Your task to perform on an android device: turn on javascript in the chrome app Image 0: 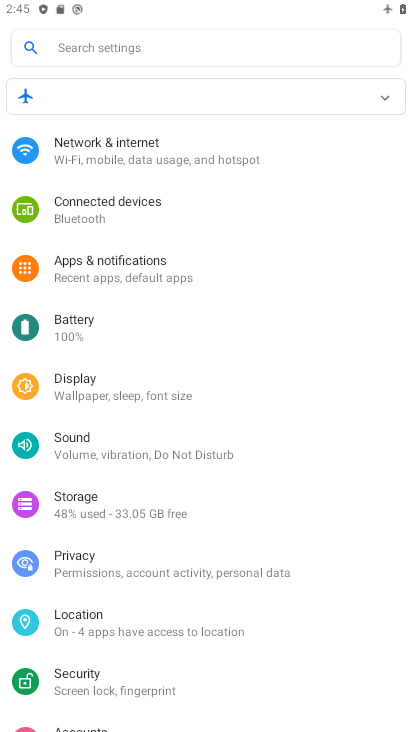
Step 0: press home button
Your task to perform on an android device: turn on javascript in the chrome app Image 1: 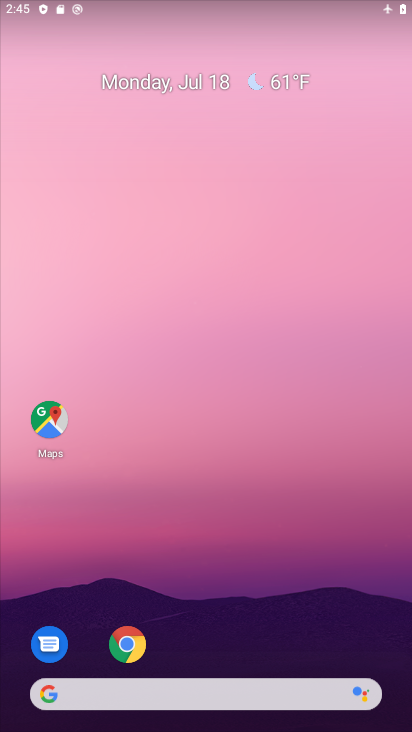
Step 1: click (141, 655)
Your task to perform on an android device: turn on javascript in the chrome app Image 2: 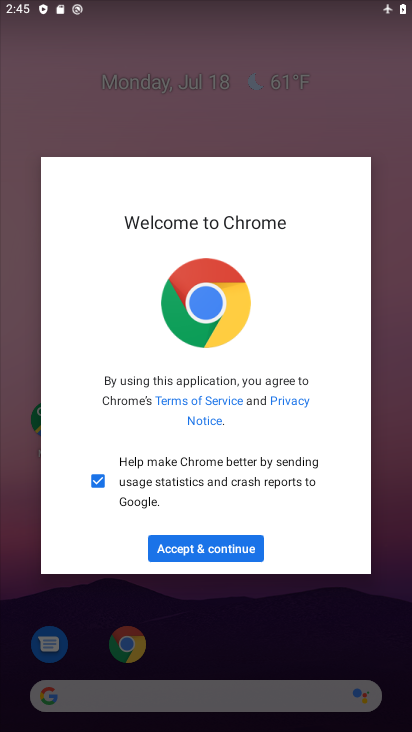
Step 2: click (226, 547)
Your task to perform on an android device: turn on javascript in the chrome app Image 3: 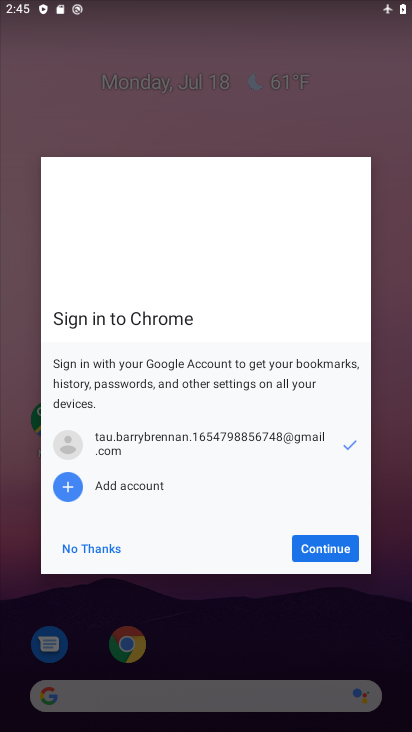
Step 3: click (336, 547)
Your task to perform on an android device: turn on javascript in the chrome app Image 4: 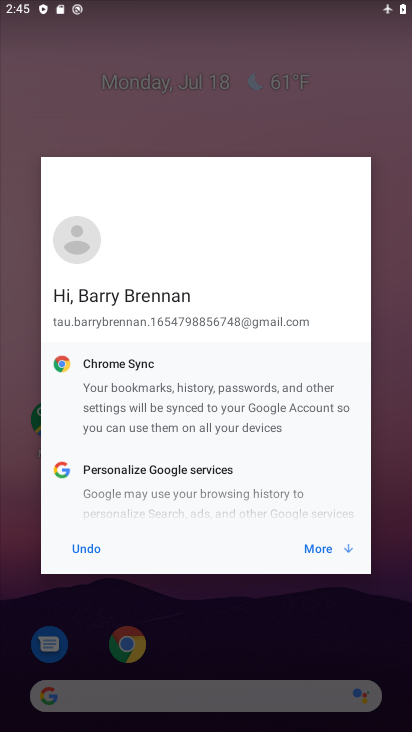
Step 4: click (336, 547)
Your task to perform on an android device: turn on javascript in the chrome app Image 5: 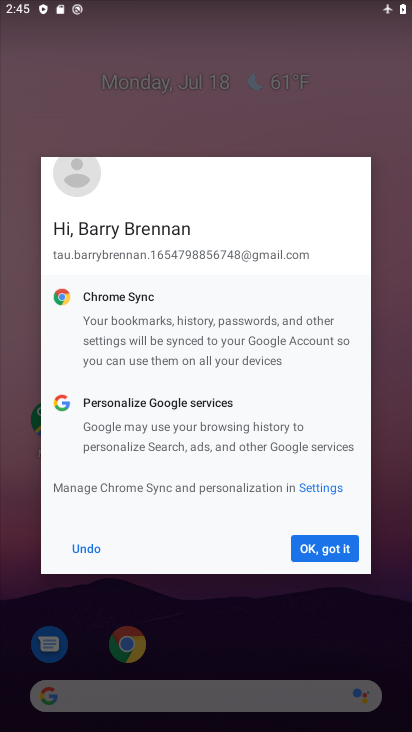
Step 5: click (336, 547)
Your task to perform on an android device: turn on javascript in the chrome app Image 6: 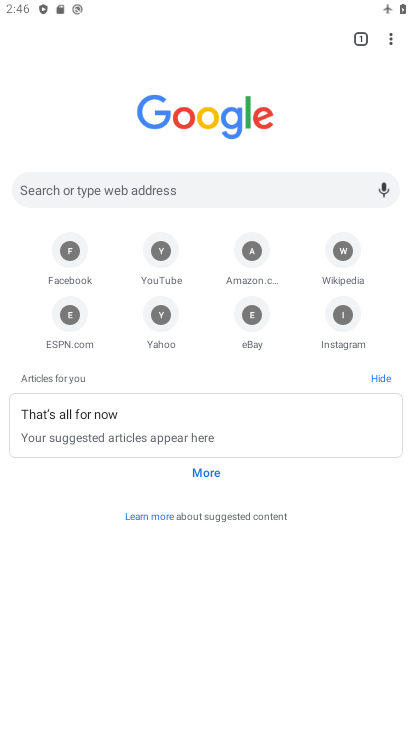
Step 6: click (390, 43)
Your task to perform on an android device: turn on javascript in the chrome app Image 7: 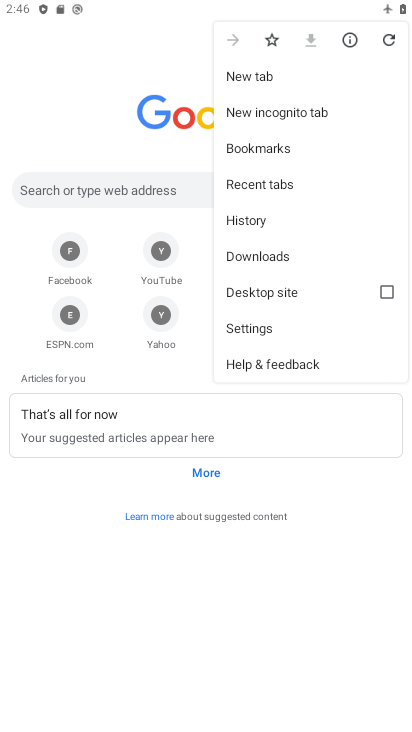
Step 7: click (267, 325)
Your task to perform on an android device: turn on javascript in the chrome app Image 8: 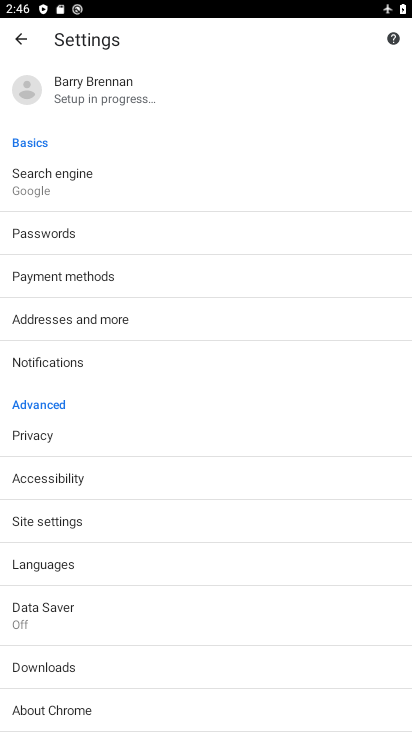
Step 8: click (65, 532)
Your task to perform on an android device: turn on javascript in the chrome app Image 9: 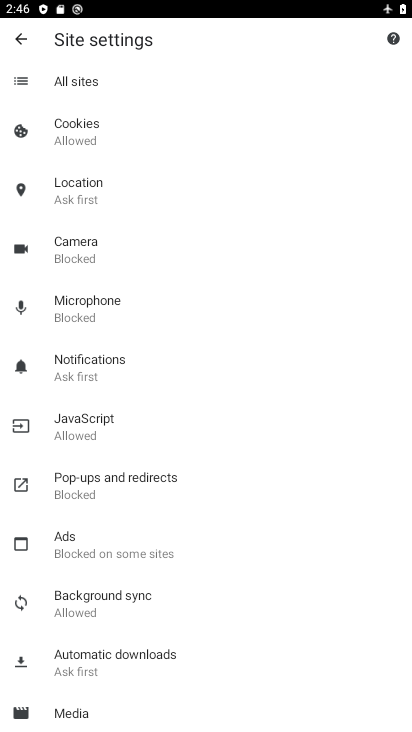
Step 9: click (126, 432)
Your task to perform on an android device: turn on javascript in the chrome app Image 10: 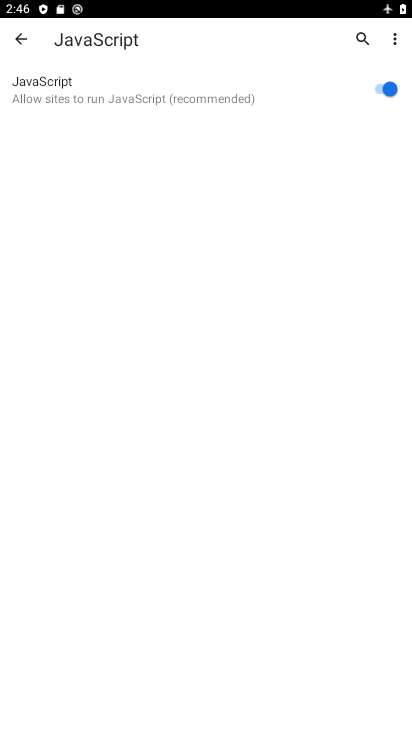
Step 10: task complete